Your task to perform on an android device: Open ESPN.com Image 0: 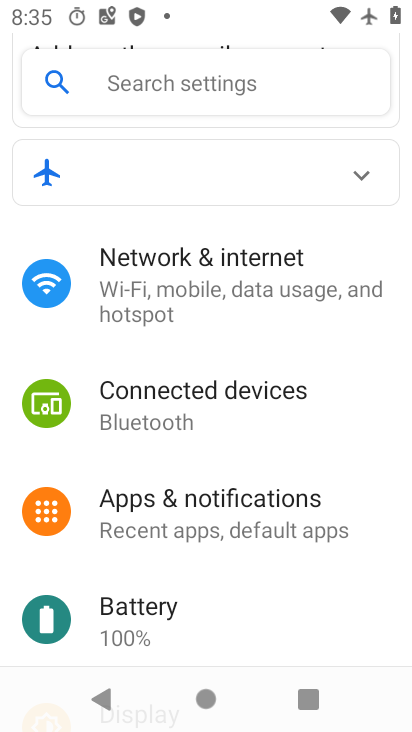
Step 0: press home button
Your task to perform on an android device: Open ESPN.com Image 1: 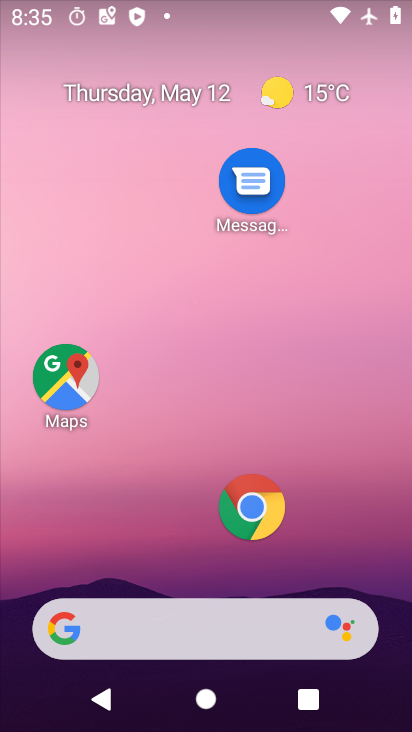
Step 1: click (256, 500)
Your task to perform on an android device: Open ESPN.com Image 2: 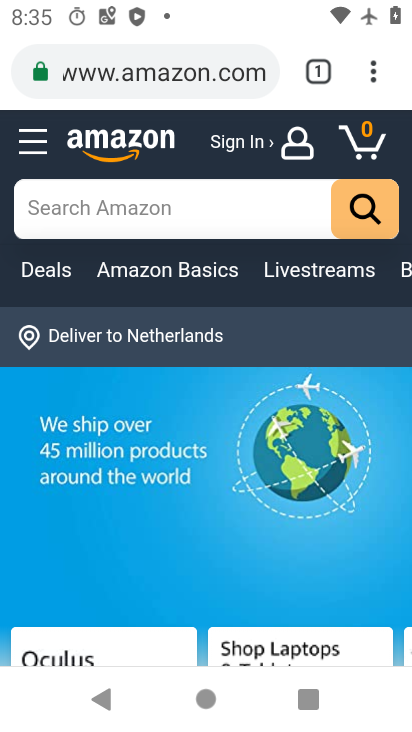
Step 2: click (223, 88)
Your task to perform on an android device: Open ESPN.com Image 3: 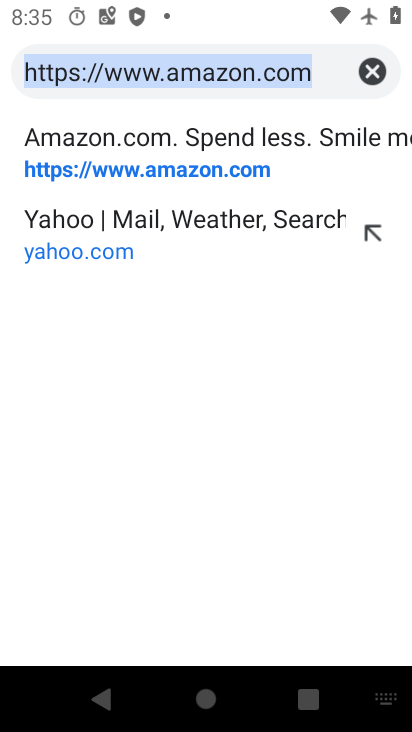
Step 3: type "ESPN.com"
Your task to perform on an android device: Open ESPN.com Image 4: 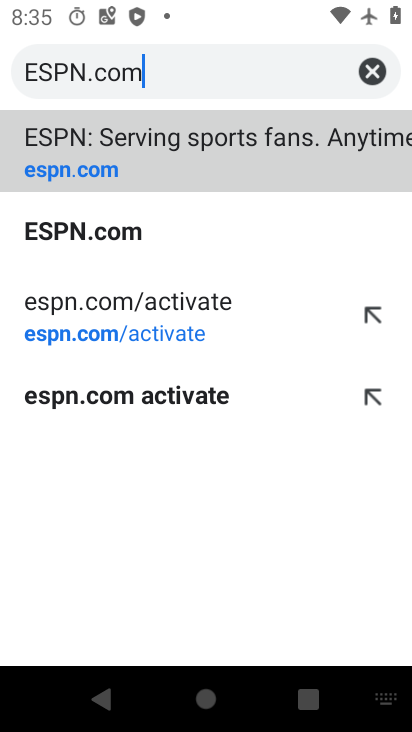
Step 4: click (116, 151)
Your task to perform on an android device: Open ESPN.com Image 5: 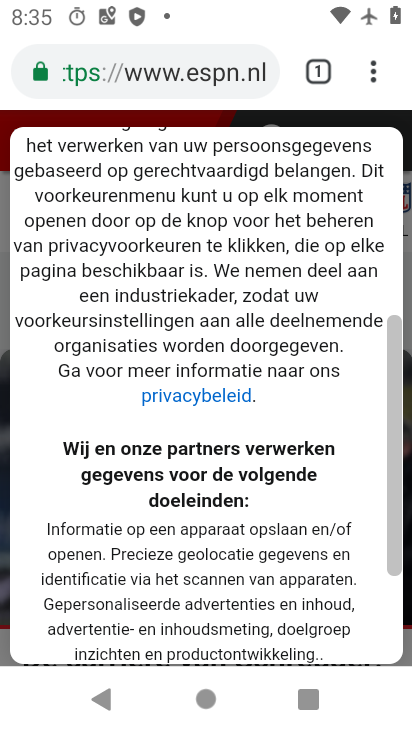
Step 5: task complete